Your task to perform on an android device: snooze an email in the gmail app Image 0: 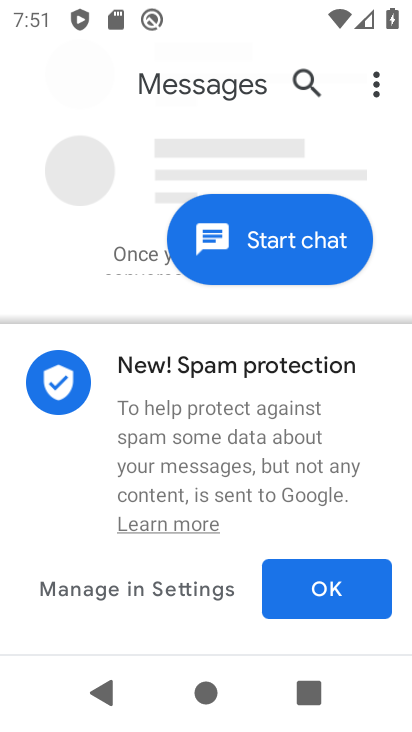
Step 0: press home button
Your task to perform on an android device: snooze an email in the gmail app Image 1: 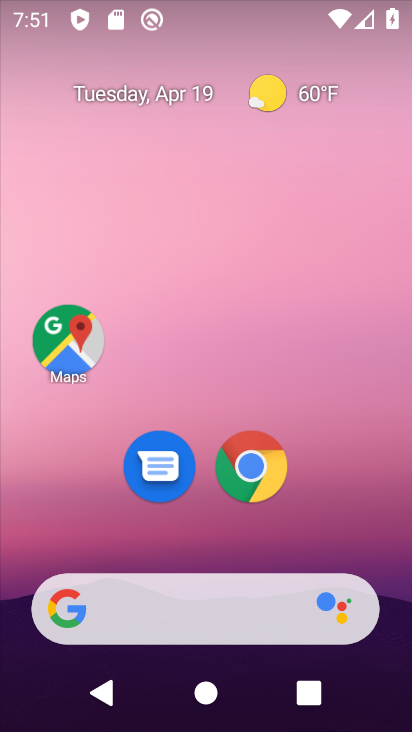
Step 1: click (301, 37)
Your task to perform on an android device: snooze an email in the gmail app Image 2: 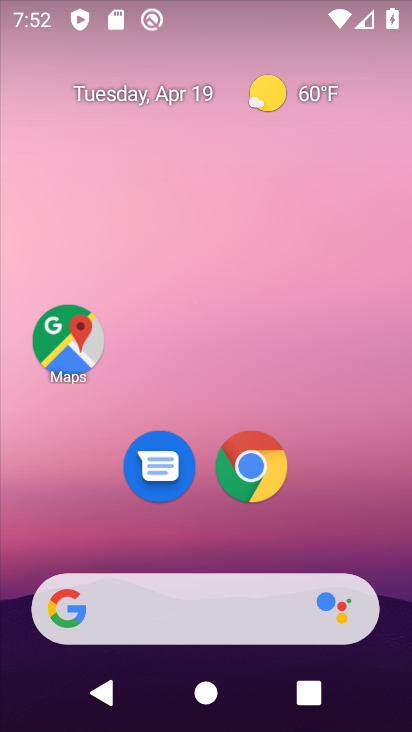
Step 2: drag from (296, 483) to (345, 156)
Your task to perform on an android device: snooze an email in the gmail app Image 3: 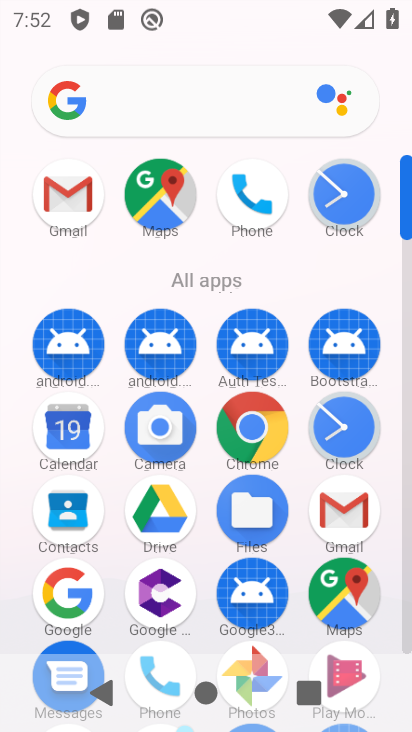
Step 3: click (346, 490)
Your task to perform on an android device: snooze an email in the gmail app Image 4: 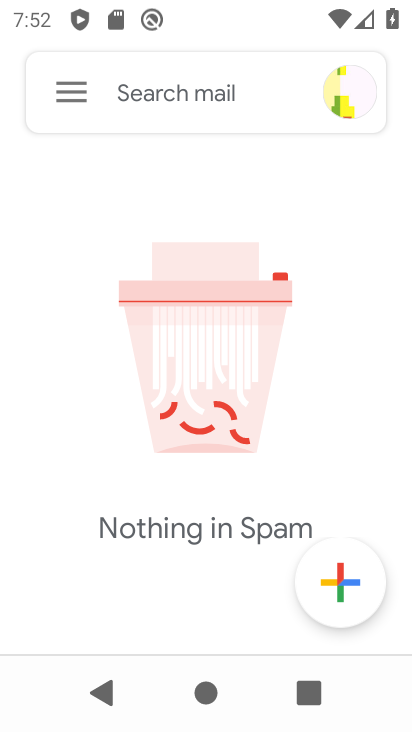
Step 4: click (84, 102)
Your task to perform on an android device: snooze an email in the gmail app Image 5: 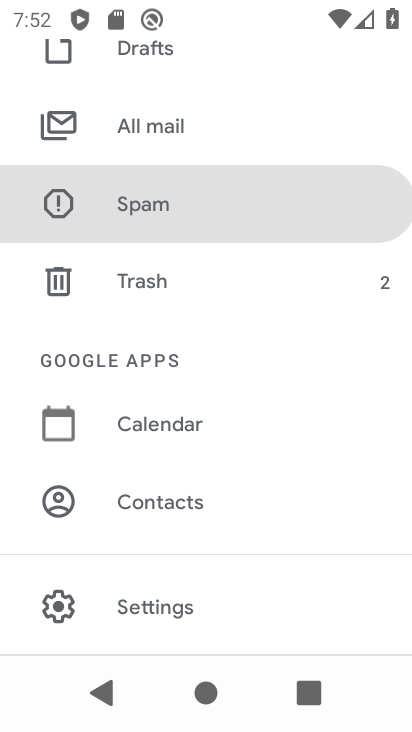
Step 5: drag from (248, 209) to (226, 659)
Your task to perform on an android device: snooze an email in the gmail app Image 6: 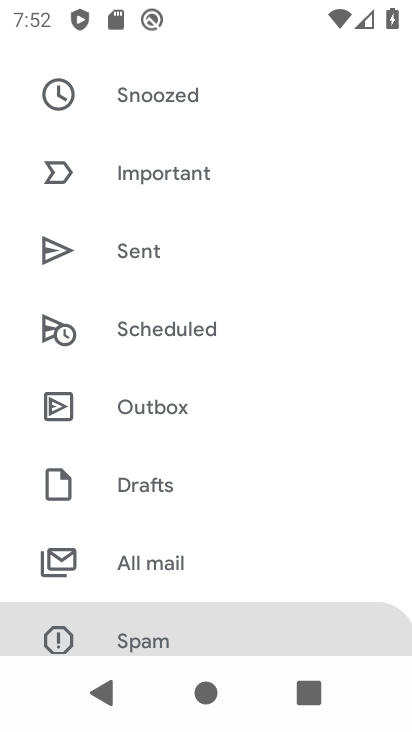
Step 6: click (199, 102)
Your task to perform on an android device: snooze an email in the gmail app Image 7: 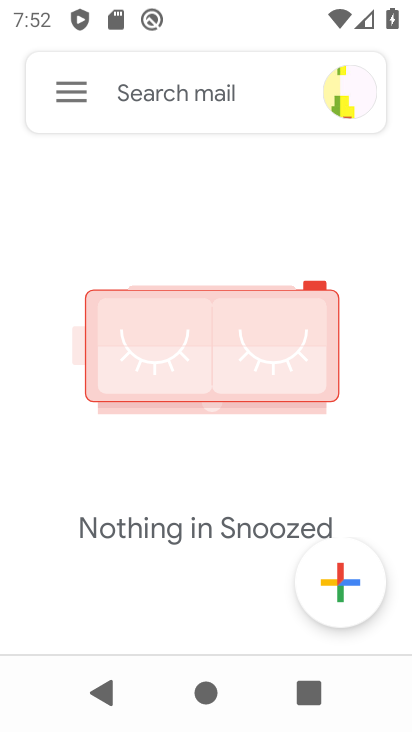
Step 7: task complete